Your task to perform on an android device: Open internet settings Image 0: 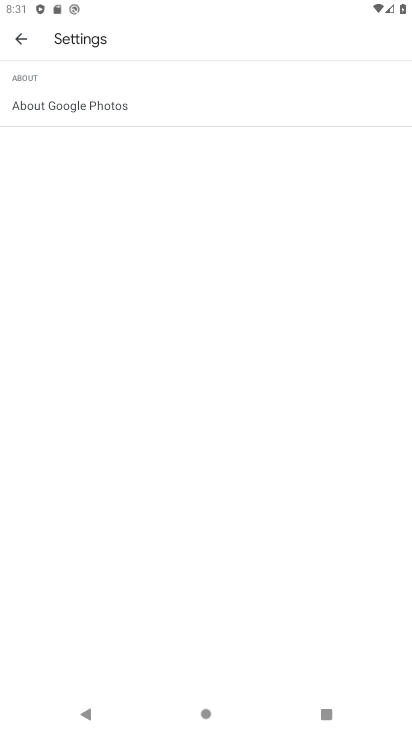
Step 0: press home button
Your task to perform on an android device: Open internet settings Image 1: 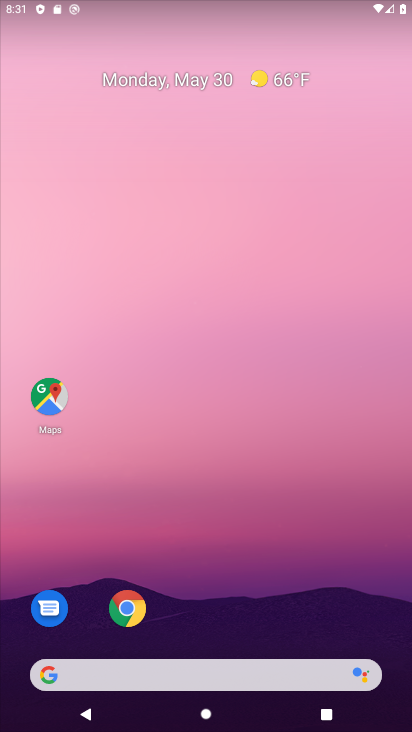
Step 1: drag from (224, 726) to (95, 12)
Your task to perform on an android device: Open internet settings Image 2: 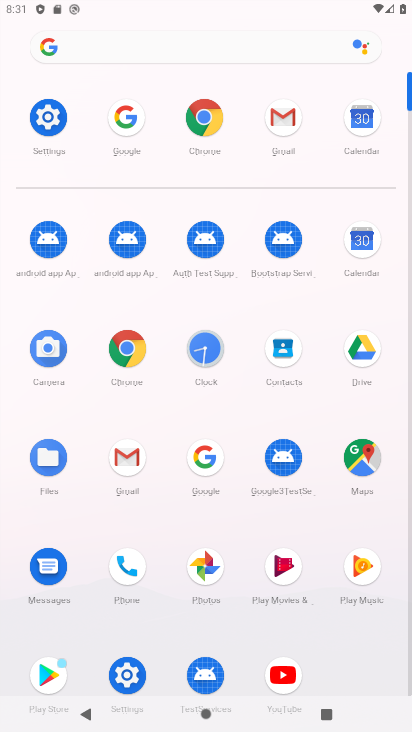
Step 2: click (43, 118)
Your task to perform on an android device: Open internet settings Image 3: 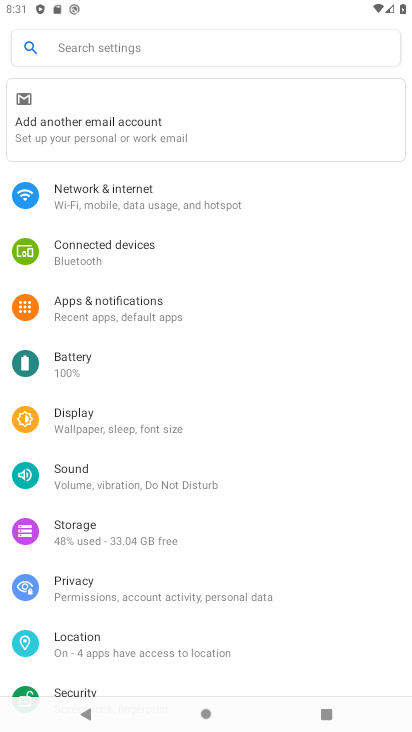
Step 3: click (97, 196)
Your task to perform on an android device: Open internet settings Image 4: 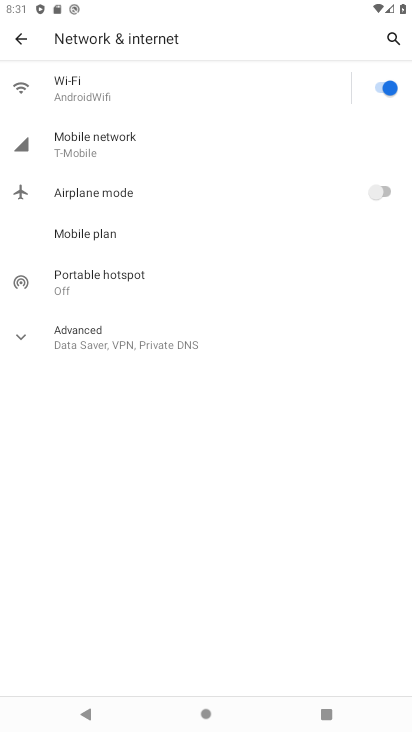
Step 4: task complete